Your task to perform on an android device: Open maps Image 0: 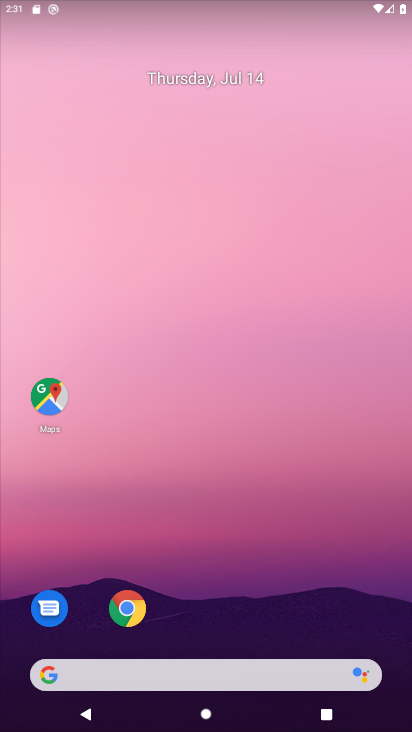
Step 0: press home button
Your task to perform on an android device: Open maps Image 1: 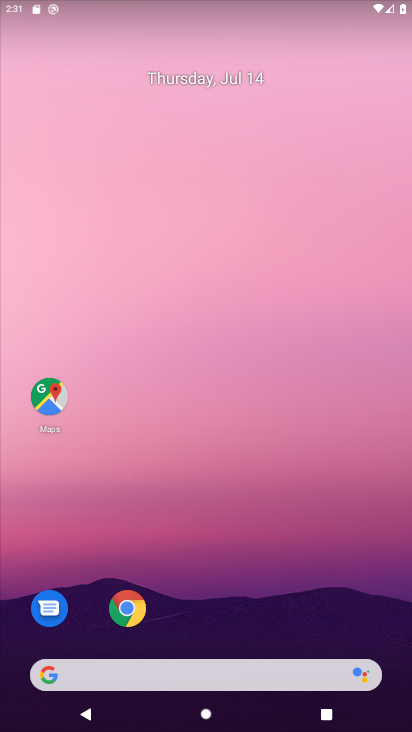
Step 1: click (46, 383)
Your task to perform on an android device: Open maps Image 2: 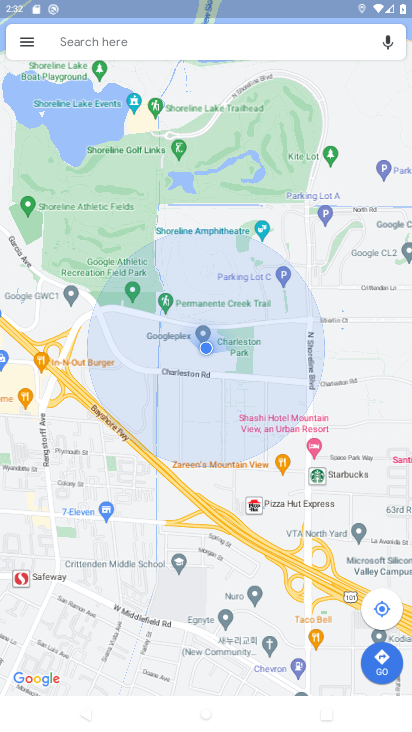
Step 2: task complete